Your task to perform on an android device: uninstall "WhatsApp Messenger" Image 0: 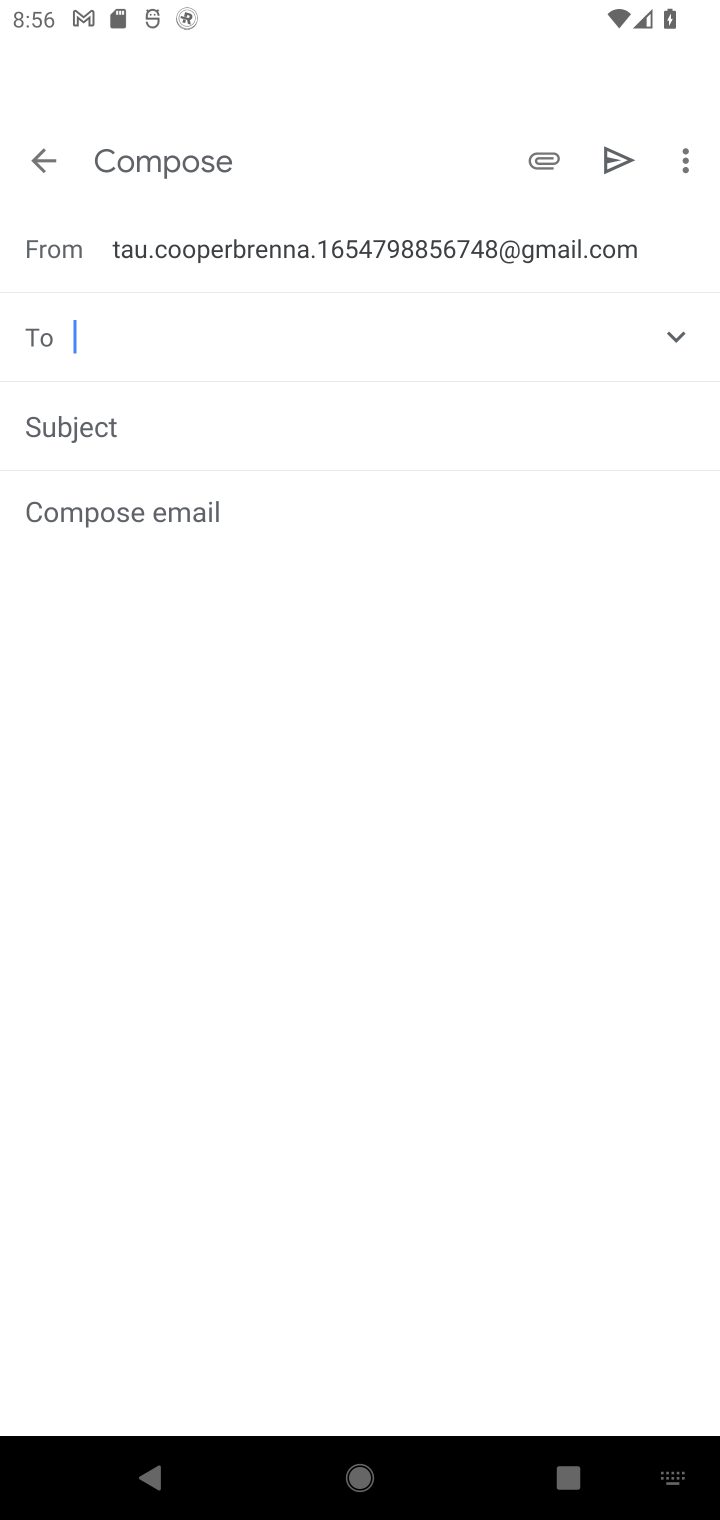
Step 0: press home button
Your task to perform on an android device: uninstall "WhatsApp Messenger" Image 1: 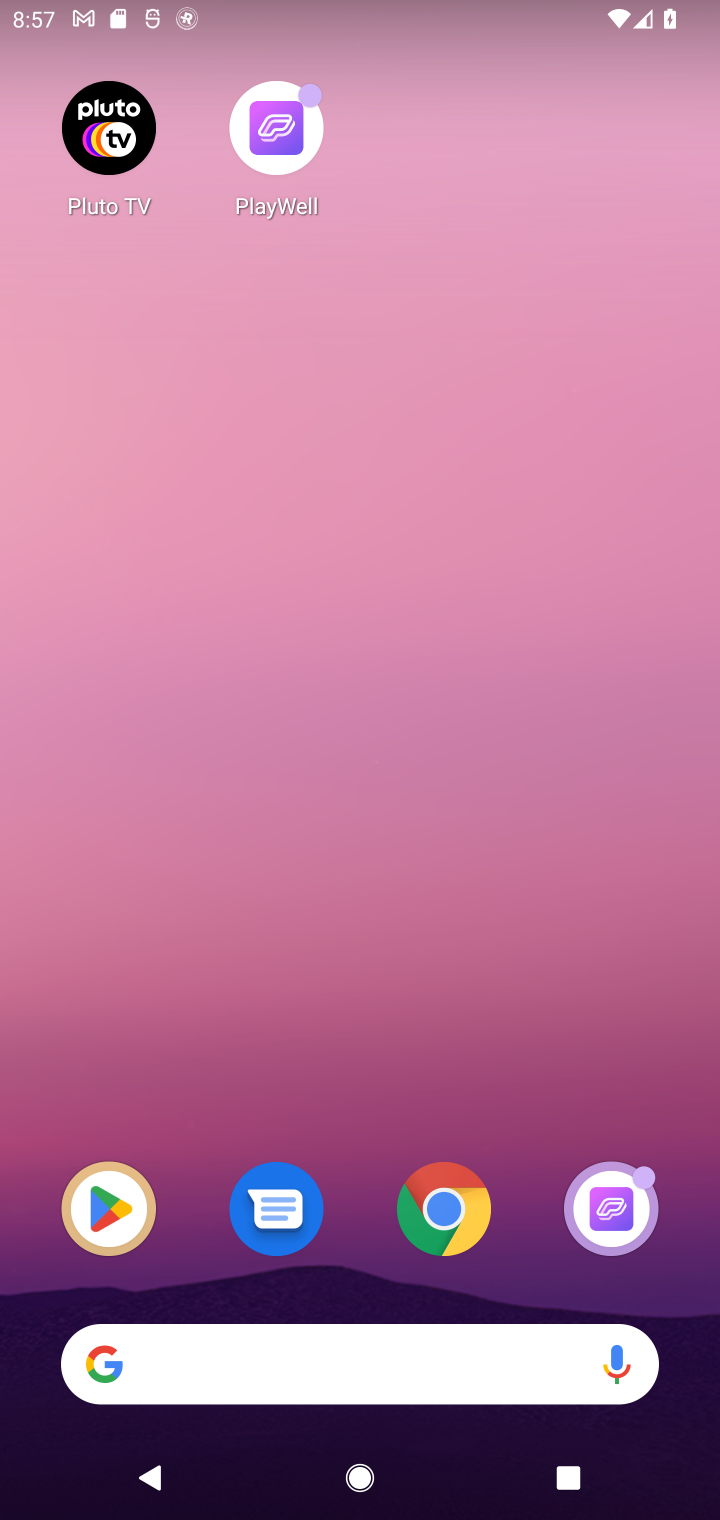
Step 1: drag from (318, 1368) to (304, 32)
Your task to perform on an android device: uninstall "WhatsApp Messenger" Image 2: 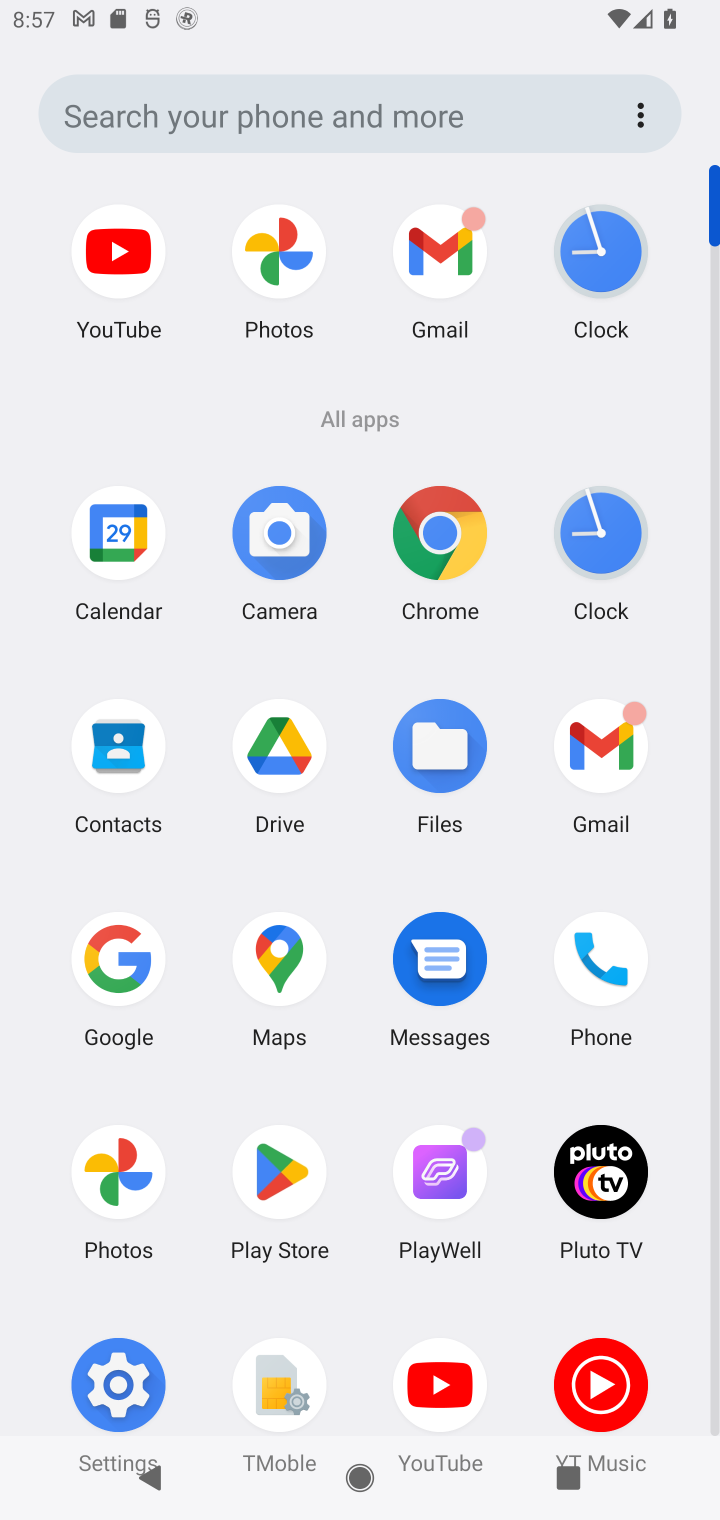
Step 2: drag from (364, 1139) to (390, 618)
Your task to perform on an android device: uninstall "WhatsApp Messenger" Image 3: 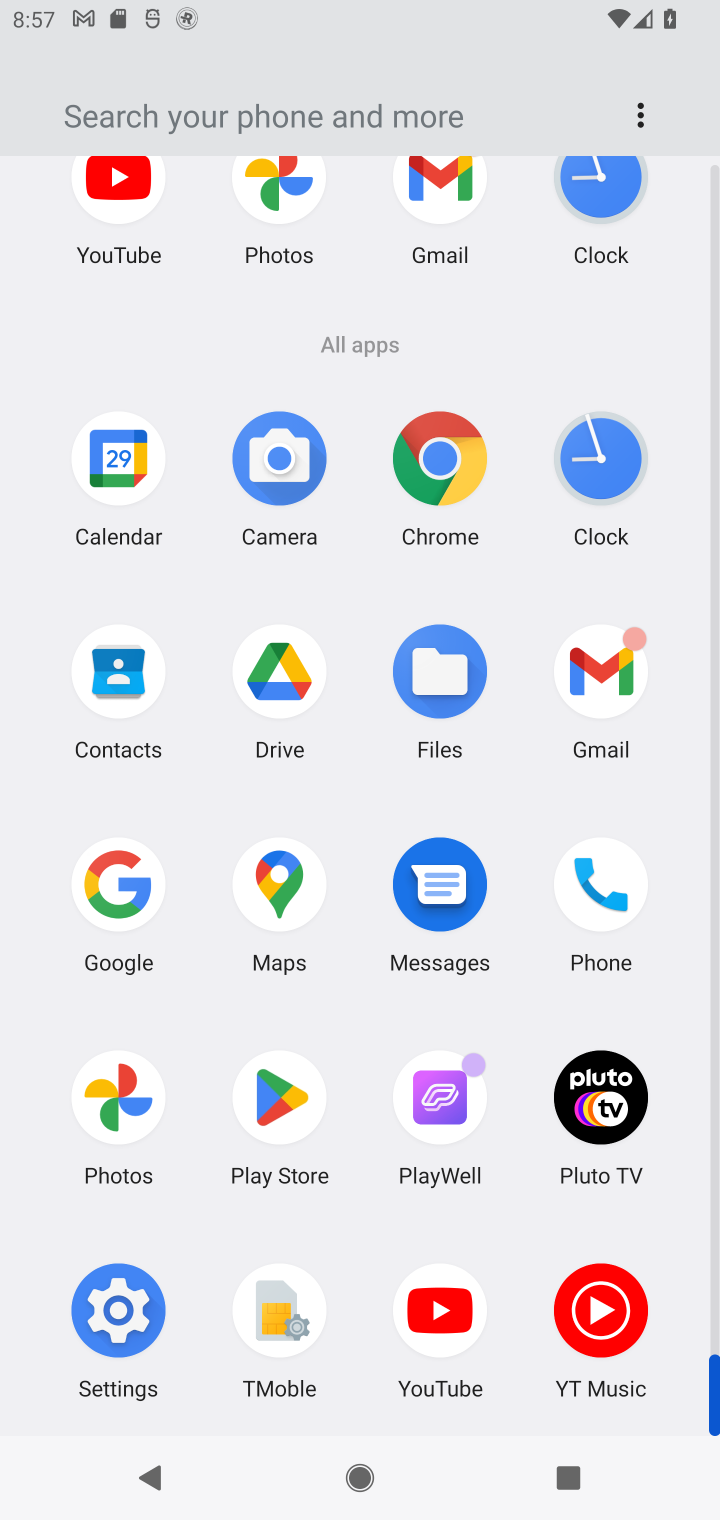
Step 3: click (284, 1100)
Your task to perform on an android device: uninstall "WhatsApp Messenger" Image 4: 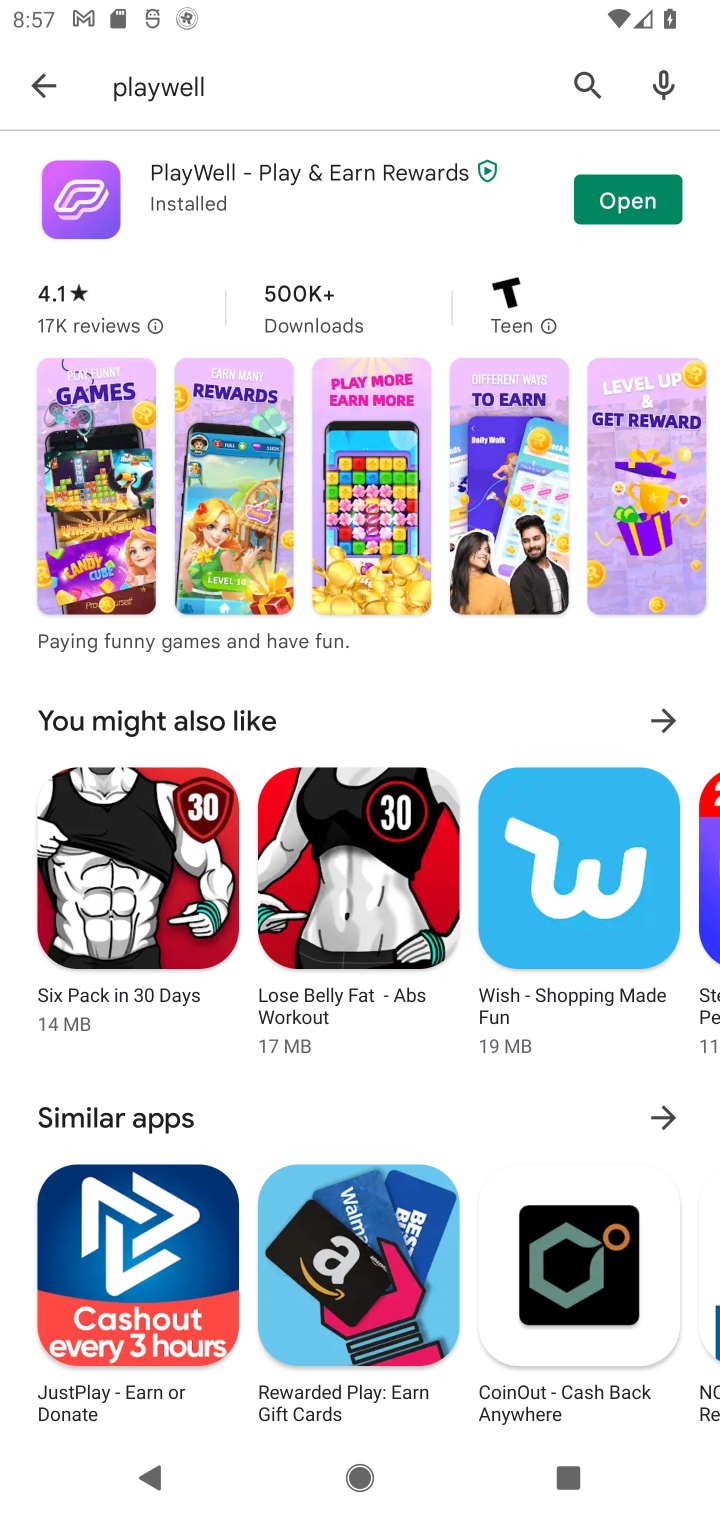
Step 4: click (587, 84)
Your task to perform on an android device: uninstall "WhatsApp Messenger" Image 5: 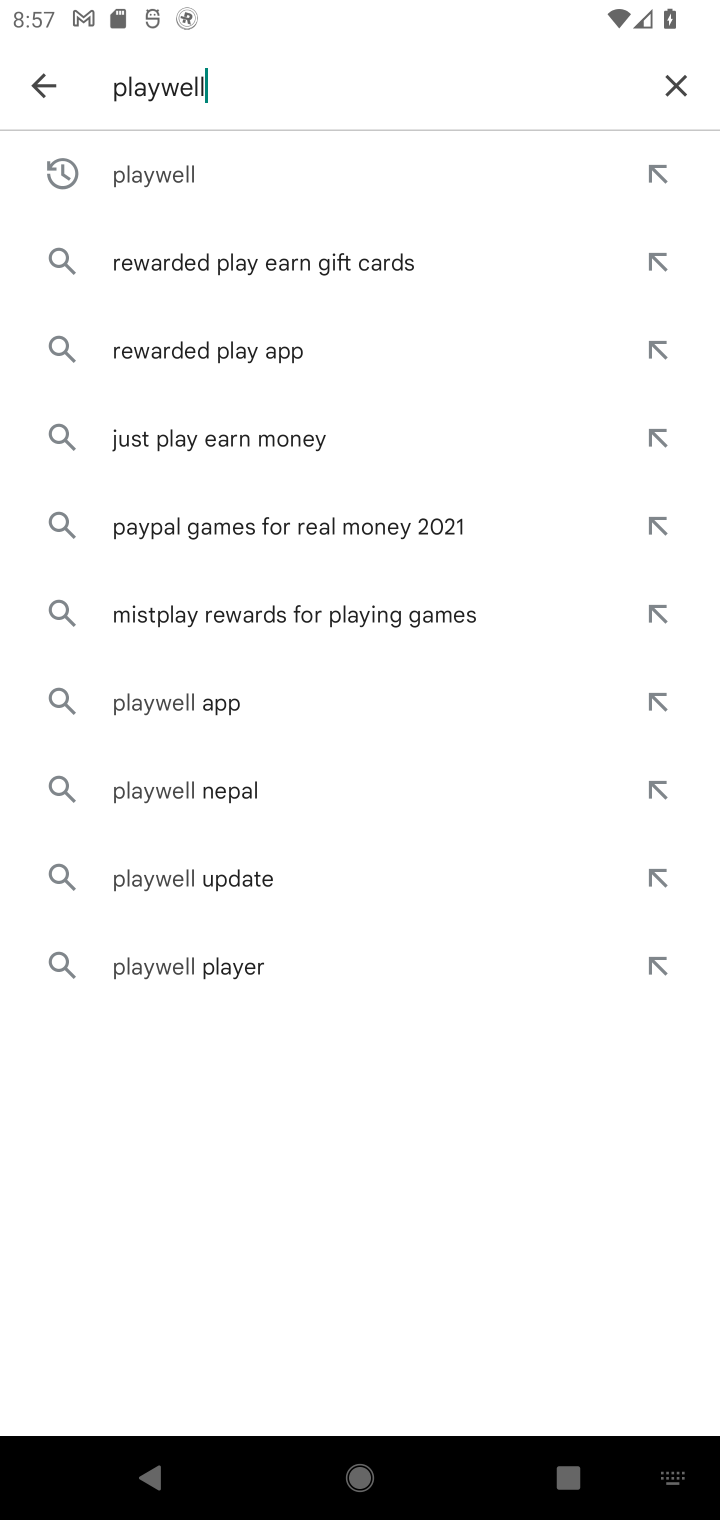
Step 5: click (669, 91)
Your task to perform on an android device: uninstall "WhatsApp Messenger" Image 6: 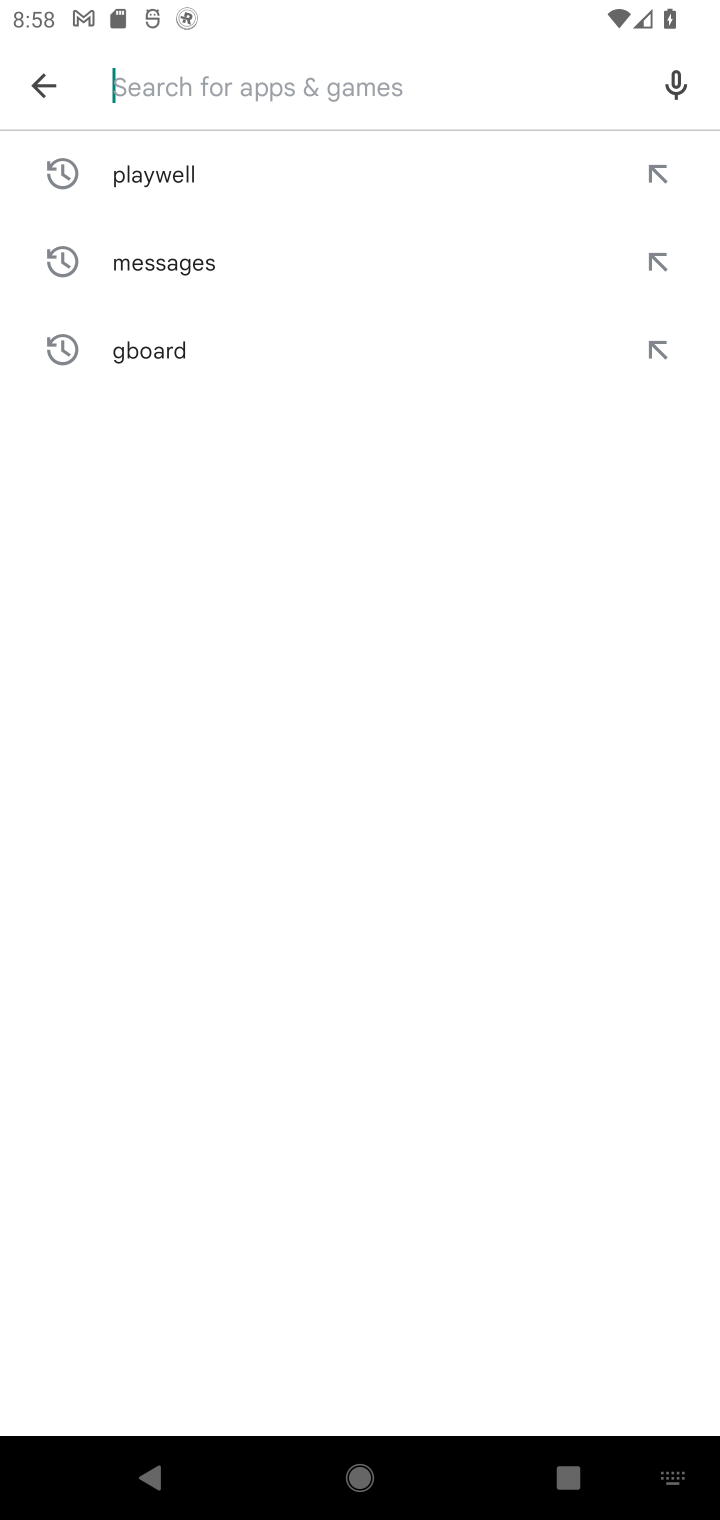
Step 6: click (200, 76)
Your task to perform on an android device: uninstall "WhatsApp Messenger" Image 7: 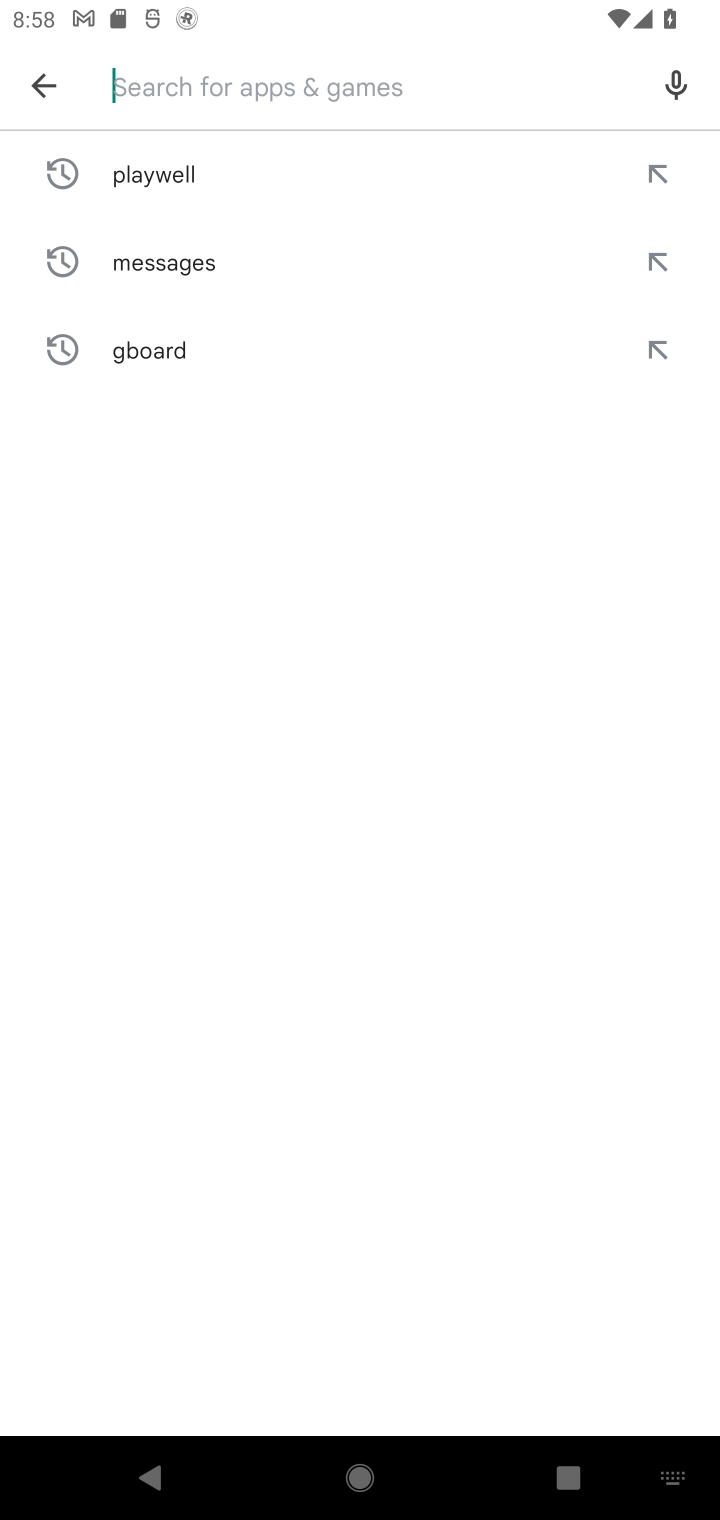
Step 7: type "WhatsApp Messenger"
Your task to perform on an android device: uninstall "WhatsApp Messenger" Image 8: 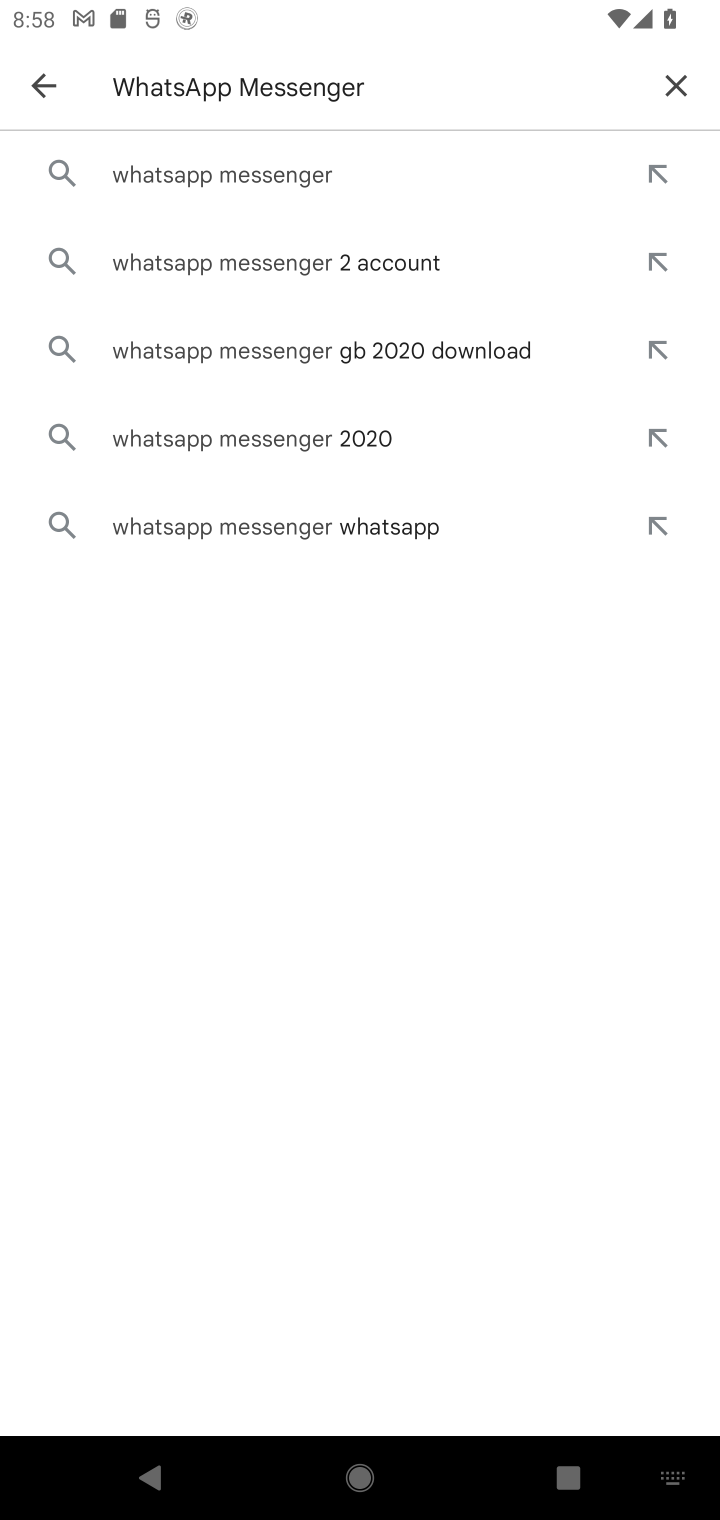
Step 8: click (289, 167)
Your task to perform on an android device: uninstall "WhatsApp Messenger" Image 9: 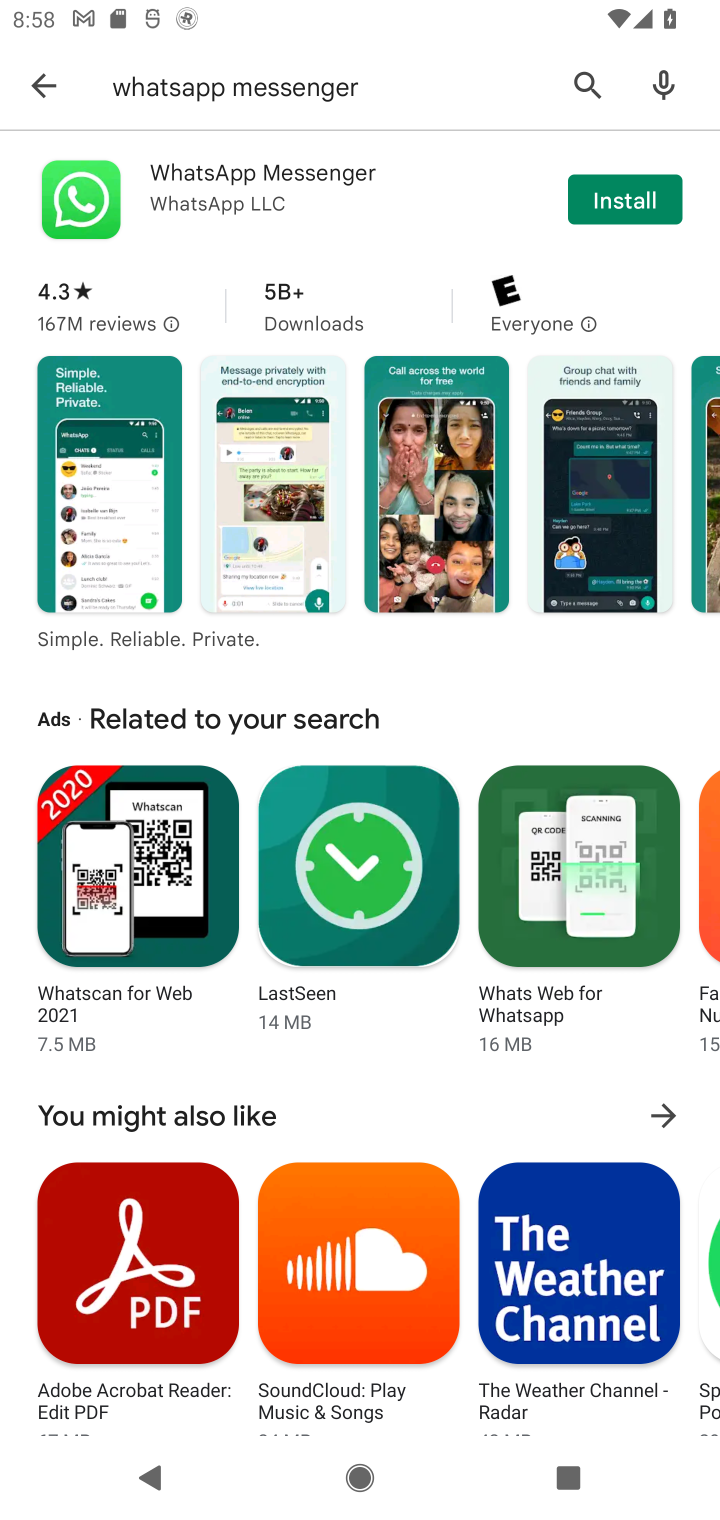
Step 9: task complete